Your task to perform on an android device: Go to calendar. Show me events next week Image 0: 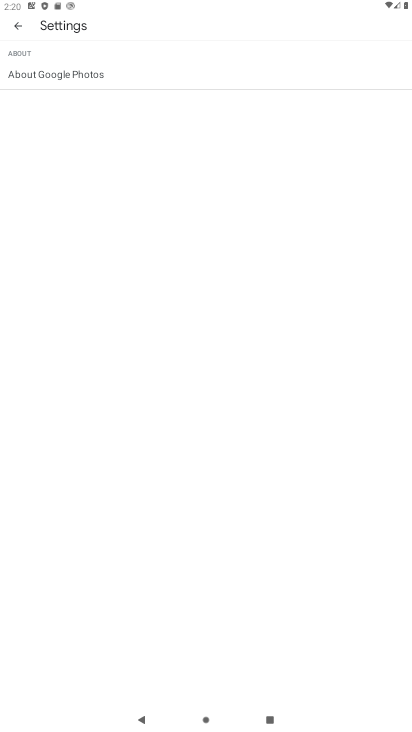
Step 0: press home button
Your task to perform on an android device: Go to calendar. Show me events next week Image 1: 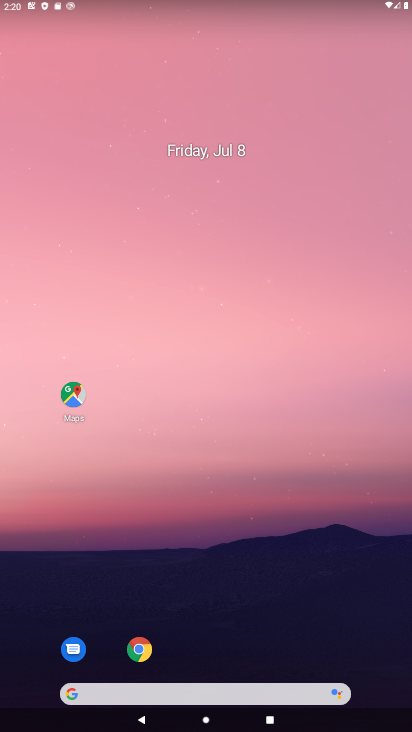
Step 1: drag from (368, 651) to (305, 85)
Your task to perform on an android device: Go to calendar. Show me events next week Image 2: 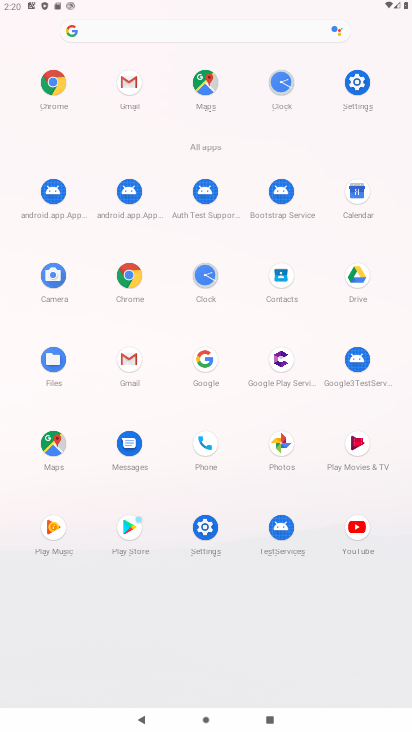
Step 2: click (358, 191)
Your task to perform on an android device: Go to calendar. Show me events next week Image 3: 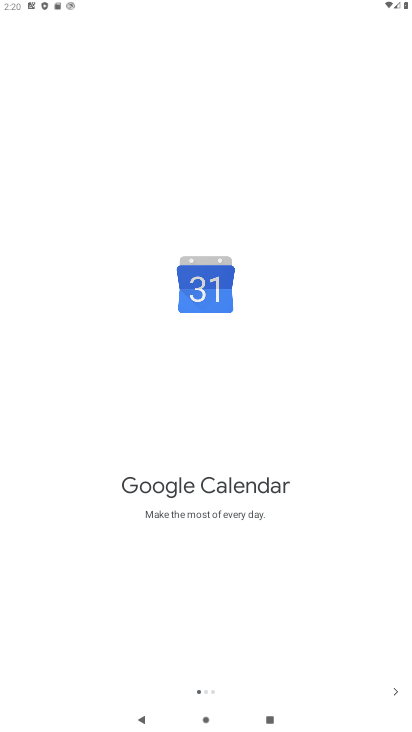
Step 3: click (395, 690)
Your task to perform on an android device: Go to calendar. Show me events next week Image 4: 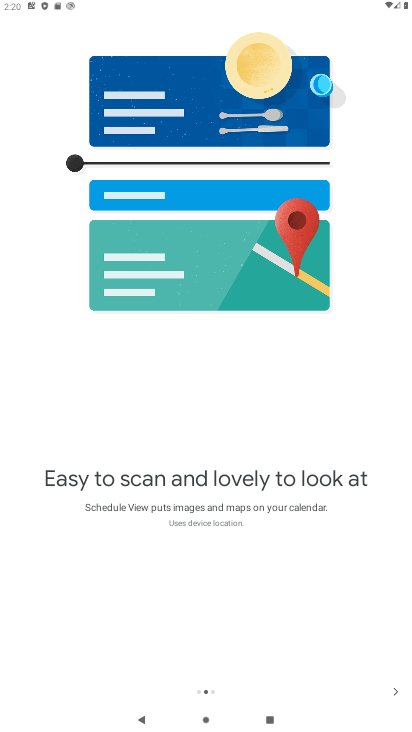
Step 4: click (395, 690)
Your task to perform on an android device: Go to calendar. Show me events next week Image 5: 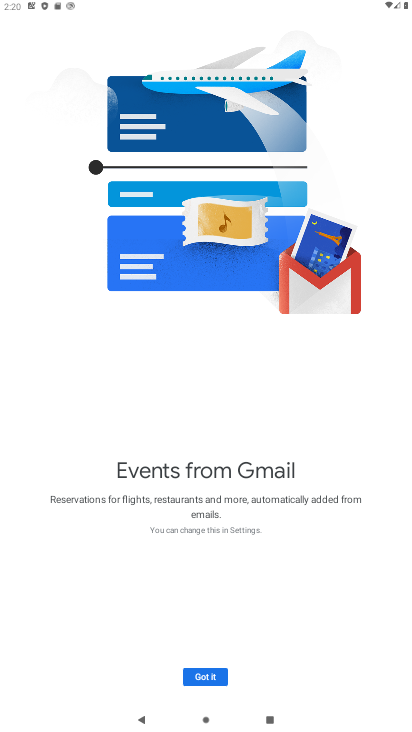
Step 5: click (197, 676)
Your task to perform on an android device: Go to calendar. Show me events next week Image 6: 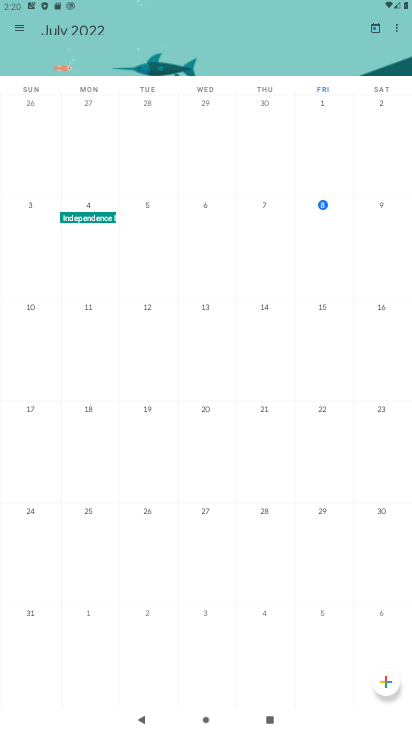
Step 6: click (18, 27)
Your task to perform on an android device: Go to calendar. Show me events next week Image 7: 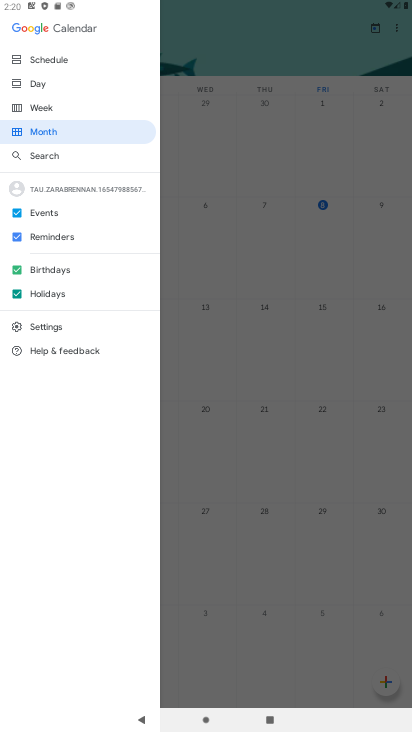
Step 7: click (39, 105)
Your task to perform on an android device: Go to calendar. Show me events next week Image 8: 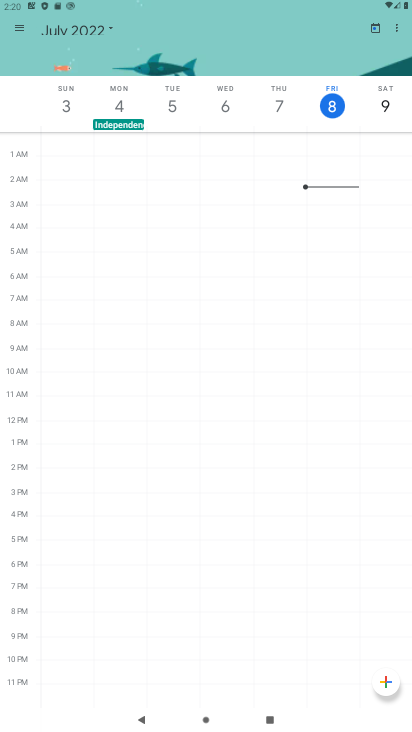
Step 8: click (107, 29)
Your task to perform on an android device: Go to calendar. Show me events next week Image 9: 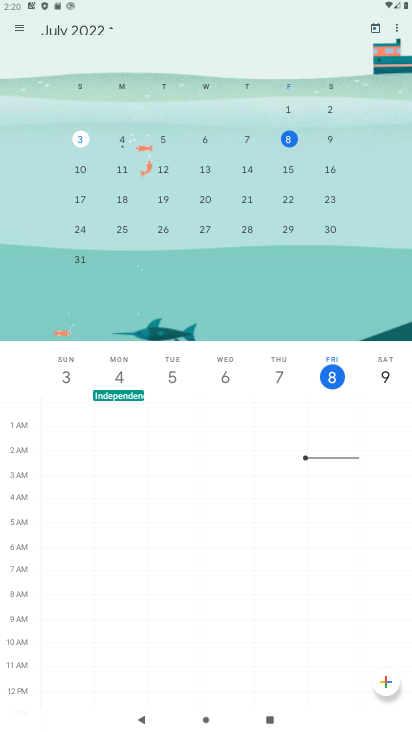
Step 9: click (80, 174)
Your task to perform on an android device: Go to calendar. Show me events next week Image 10: 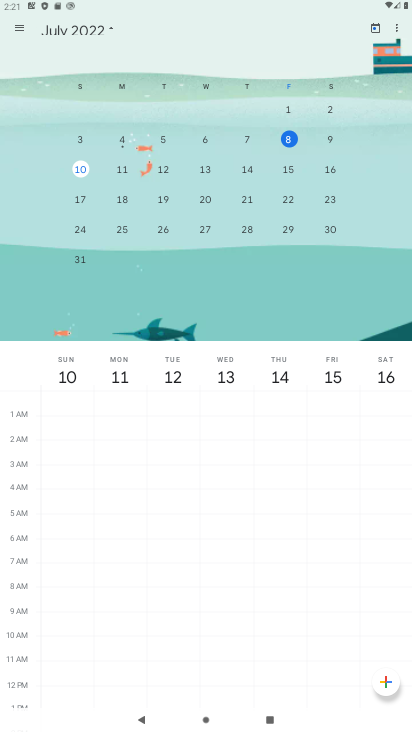
Step 10: task complete